Your task to perform on an android device: Go to calendar. Show me events next week Image 0: 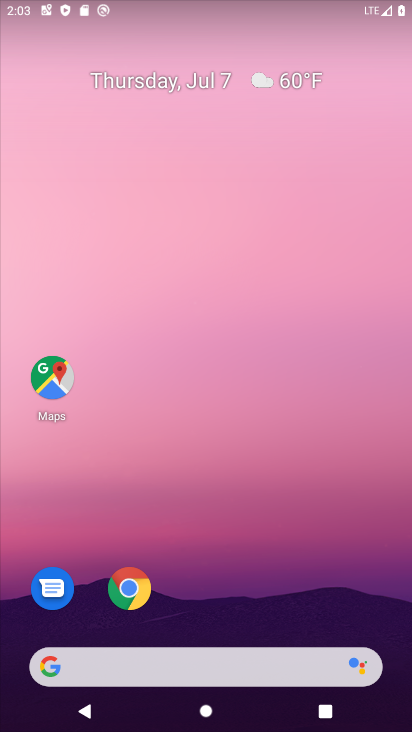
Step 0: drag from (307, 646) to (276, 205)
Your task to perform on an android device: Go to calendar. Show me events next week Image 1: 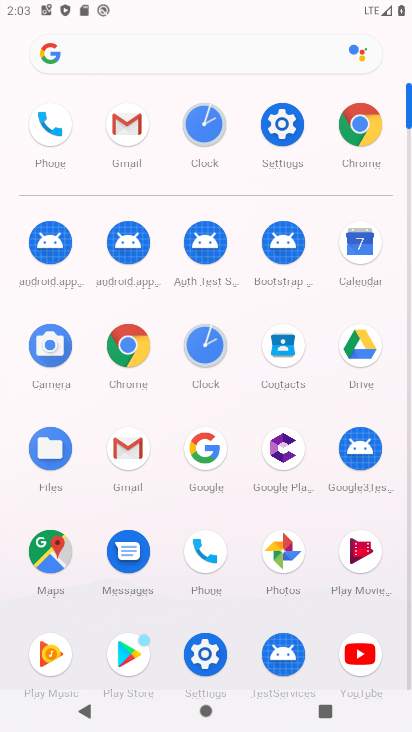
Step 1: click (359, 239)
Your task to perform on an android device: Go to calendar. Show me events next week Image 2: 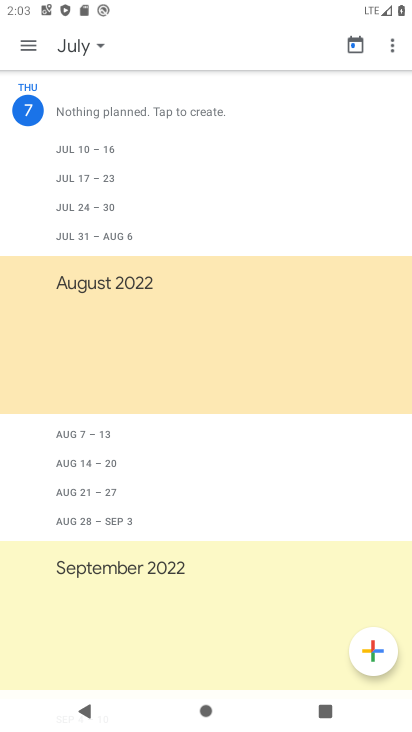
Step 2: click (65, 174)
Your task to perform on an android device: Go to calendar. Show me events next week Image 3: 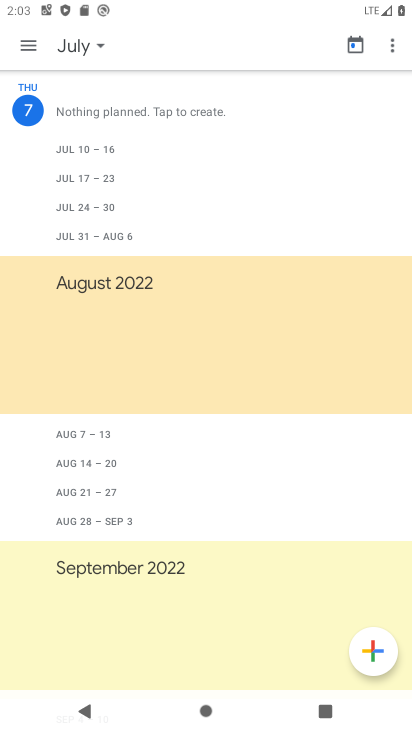
Step 3: click (32, 45)
Your task to perform on an android device: Go to calendar. Show me events next week Image 4: 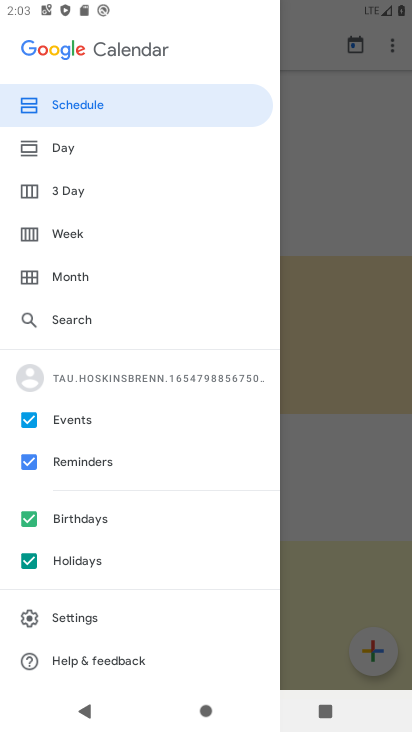
Step 4: click (87, 276)
Your task to perform on an android device: Go to calendar. Show me events next week Image 5: 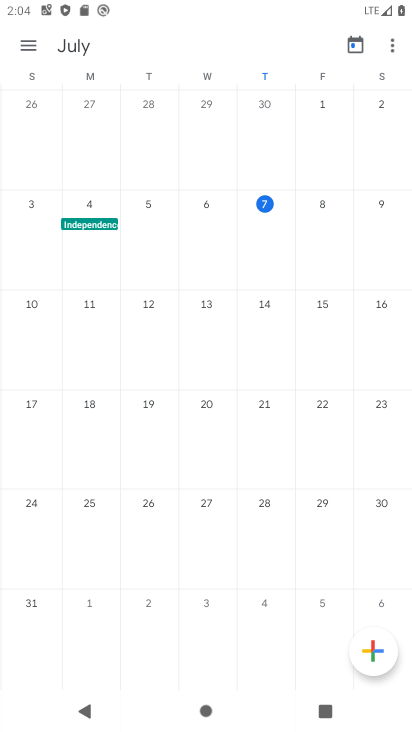
Step 5: task complete